Your task to perform on an android device: Search for Italian restaurants on Maps Image 0: 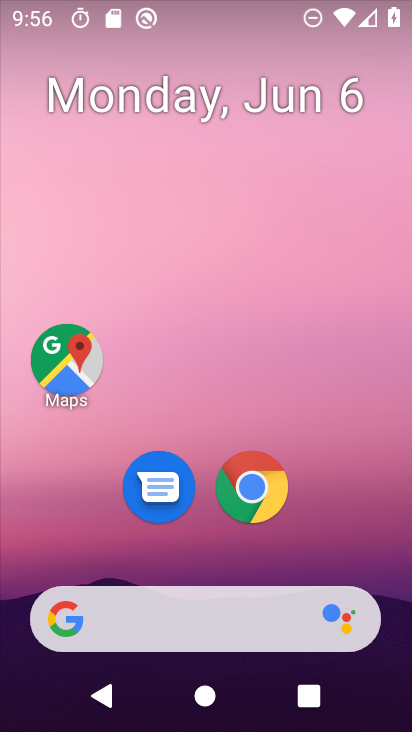
Step 0: drag from (397, 633) to (334, 39)
Your task to perform on an android device: Search for Italian restaurants on Maps Image 1: 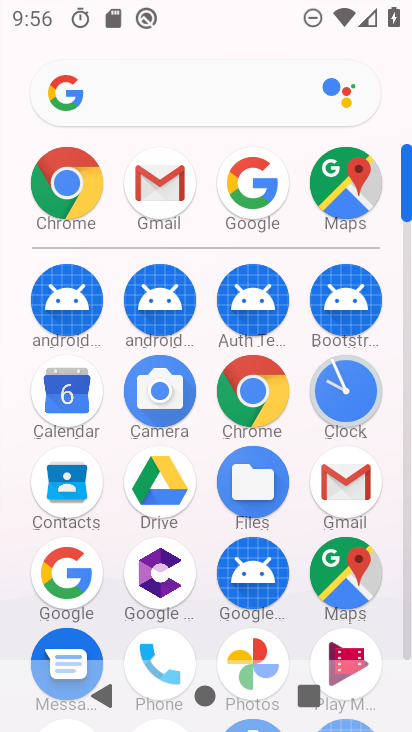
Step 1: click (345, 577)
Your task to perform on an android device: Search for Italian restaurants on Maps Image 2: 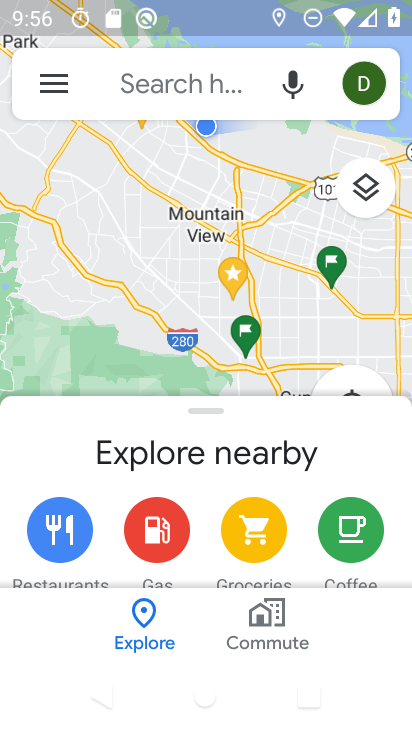
Step 2: click (137, 88)
Your task to perform on an android device: Search for Italian restaurants on Maps Image 3: 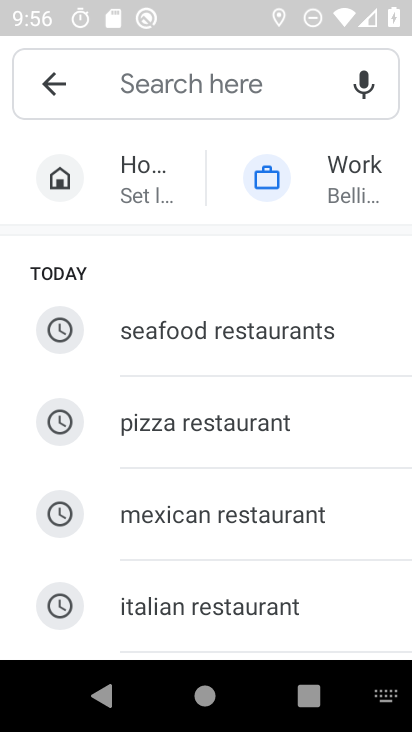
Step 3: click (205, 594)
Your task to perform on an android device: Search for Italian restaurants on Maps Image 4: 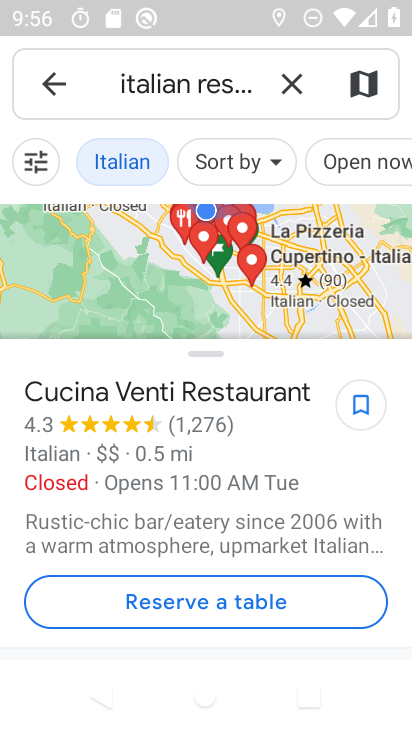
Step 4: task complete